Your task to perform on an android device: Open Google Maps Image 0: 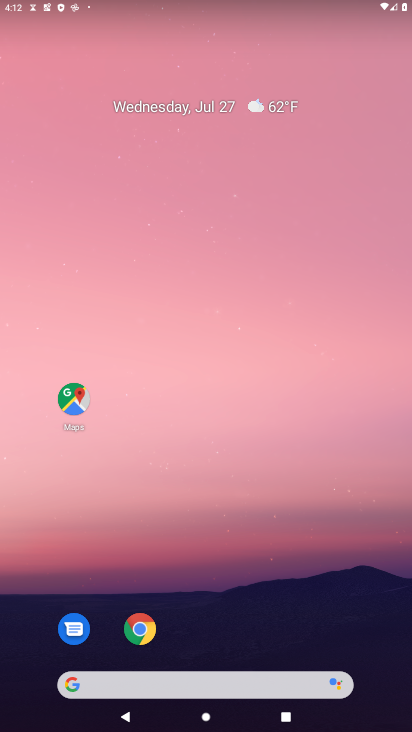
Step 0: click (76, 398)
Your task to perform on an android device: Open Google Maps Image 1: 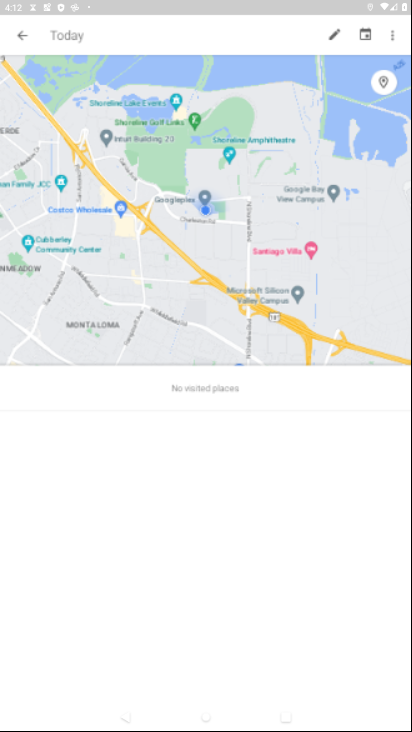
Step 1: click (76, 398)
Your task to perform on an android device: Open Google Maps Image 2: 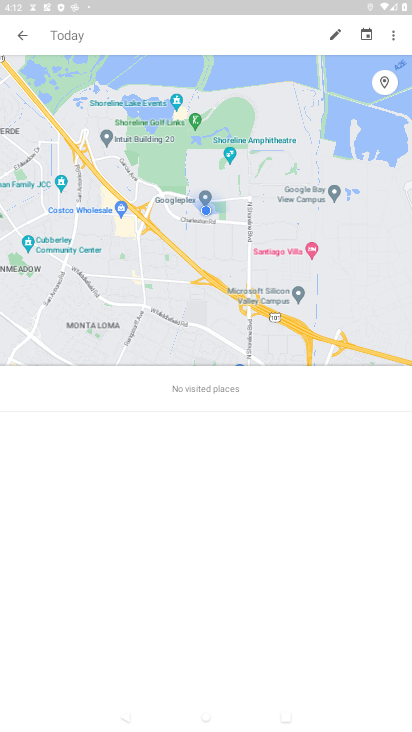
Step 2: task complete